Your task to perform on an android device: Open privacy settings Image 0: 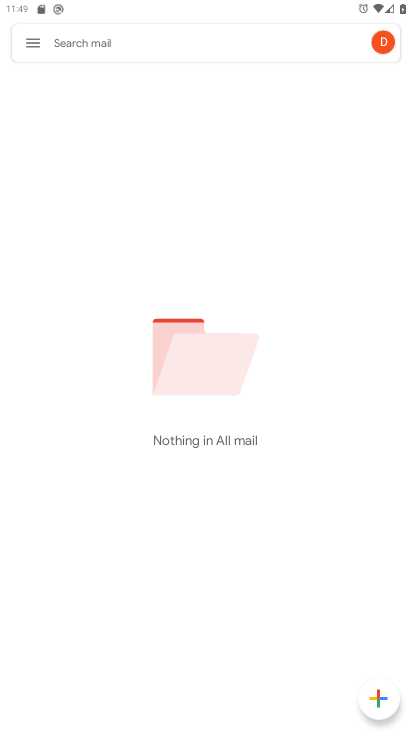
Step 0: press home button
Your task to perform on an android device: Open privacy settings Image 1: 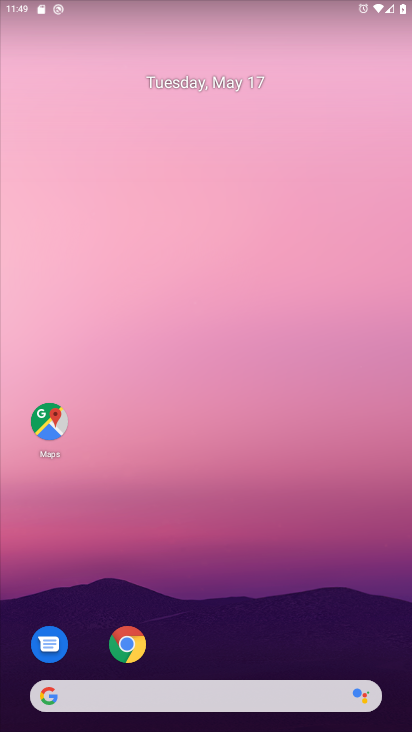
Step 1: drag from (218, 647) to (241, 61)
Your task to perform on an android device: Open privacy settings Image 2: 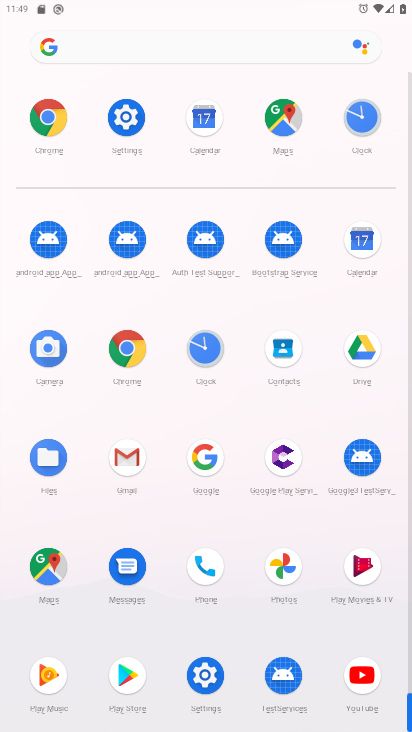
Step 2: click (125, 115)
Your task to perform on an android device: Open privacy settings Image 3: 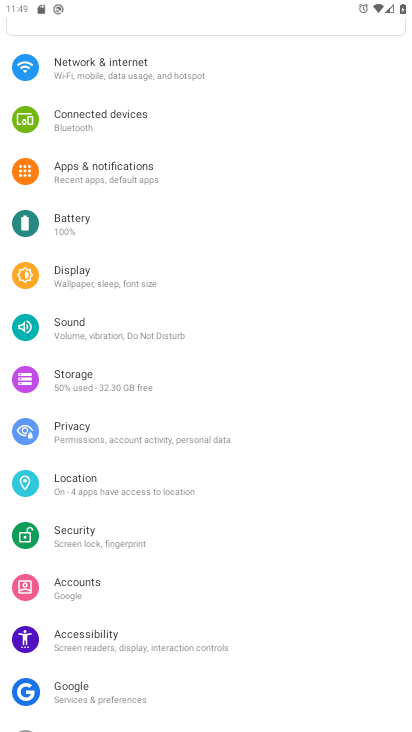
Step 3: click (100, 427)
Your task to perform on an android device: Open privacy settings Image 4: 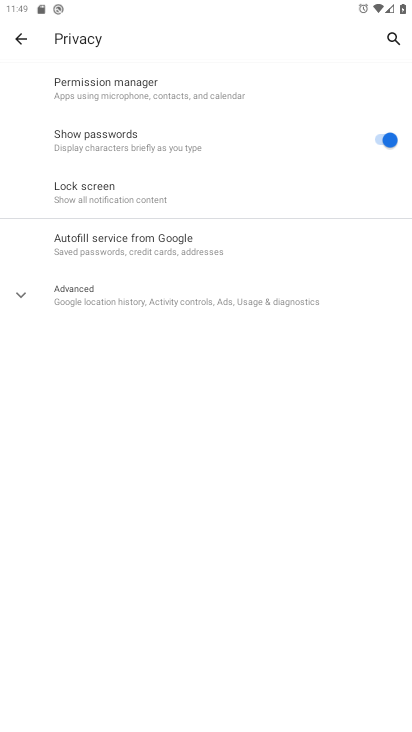
Step 4: click (38, 292)
Your task to perform on an android device: Open privacy settings Image 5: 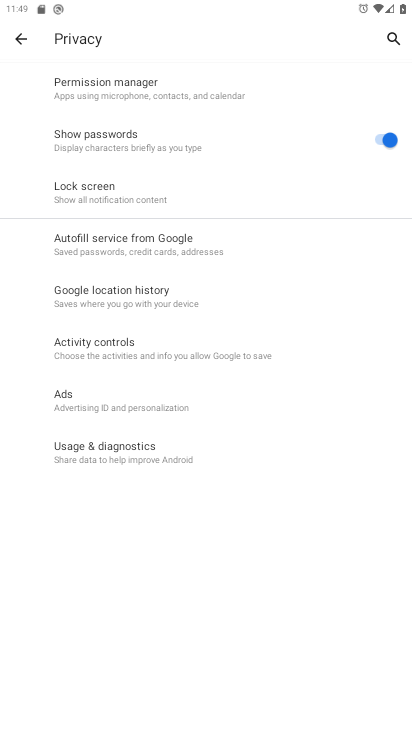
Step 5: task complete